Your task to perform on an android device: Turn off the flashlight Image 0: 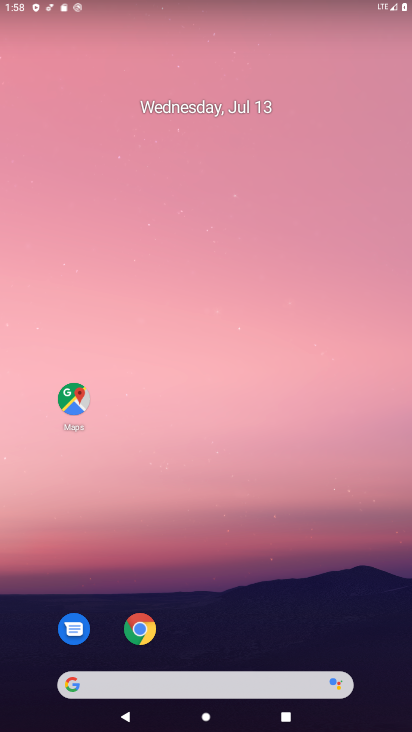
Step 0: drag from (273, 624) to (271, 124)
Your task to perform on an android device: Turn off the flashlight Image 1: 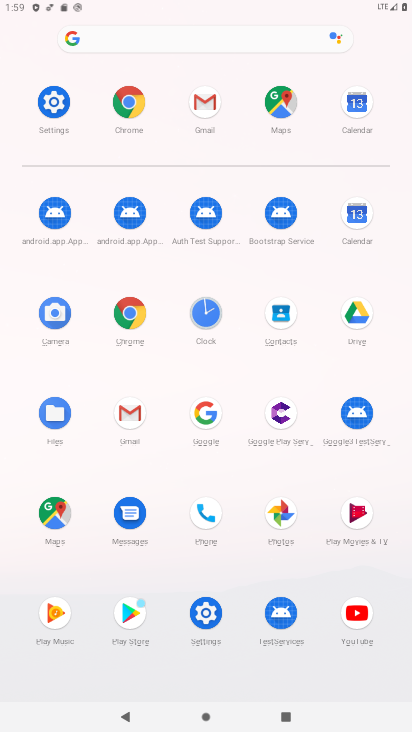
Step 1: click (52, 119)
Your task to perform on an android device: Turn off the flashlight Image 2: 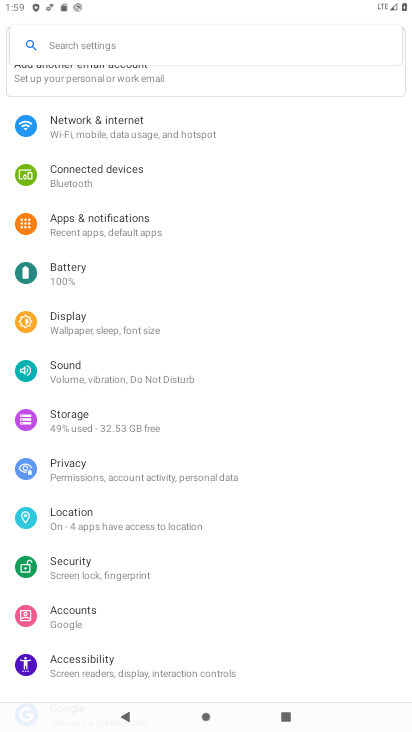
Step 2: task complete